Your task to perform on an android device: What's the weather? Image 0: 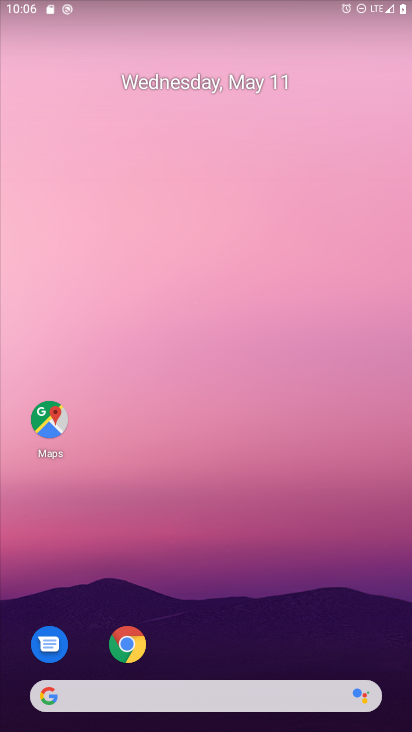
Step 0: click (223, 693)
Your task to perform on an android device: What's the weather? Image 1: 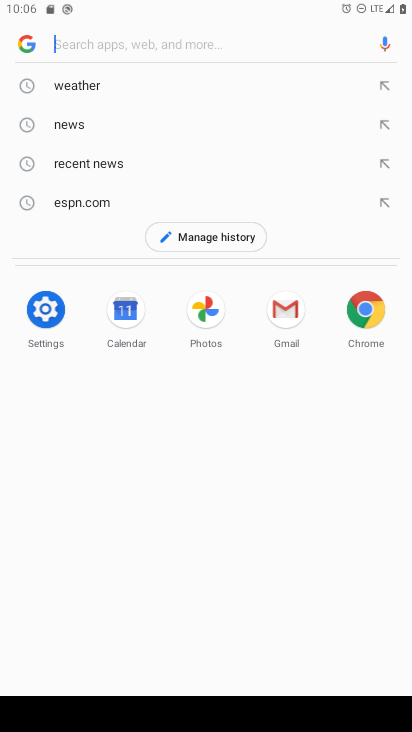
Step 1: click (83, 81)
Your task to perform on an android device: What's the weather? Image 2: 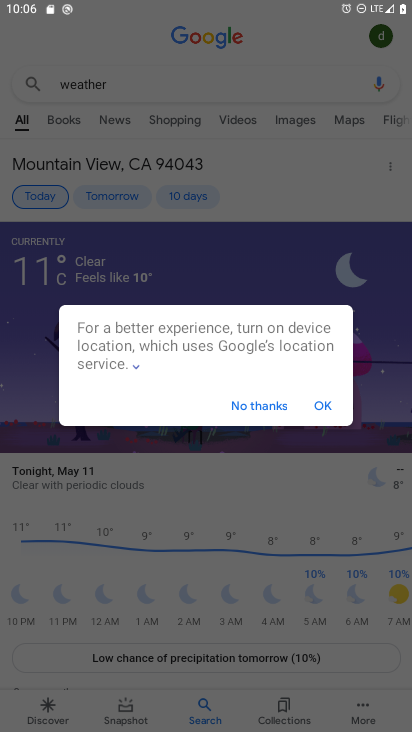
Step 2: click (317, 403)
Your task to perform on an android device: What's the weather? Image 3: 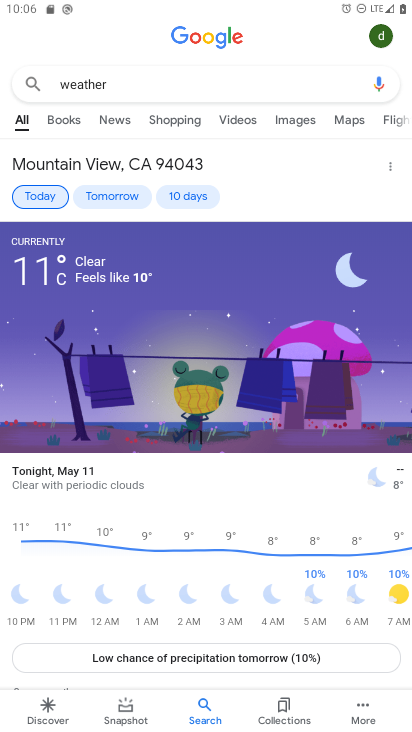
Step 3: task complete